Your task to perform on an android device: Open Google Chrome Image 0: 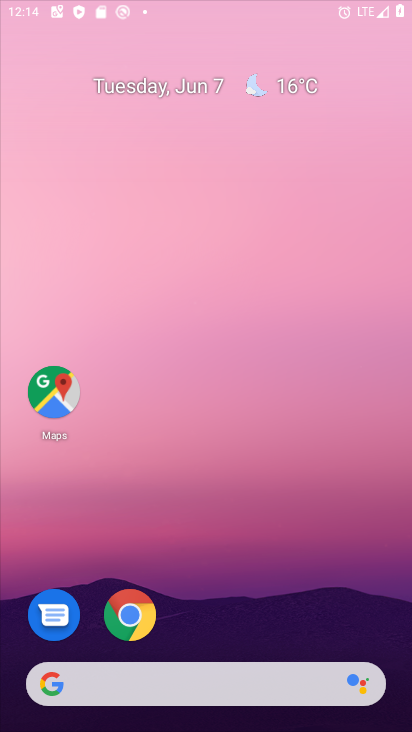
Step 0: press home button
Your task to perform on an android device: Open Google Chrome Image 1: 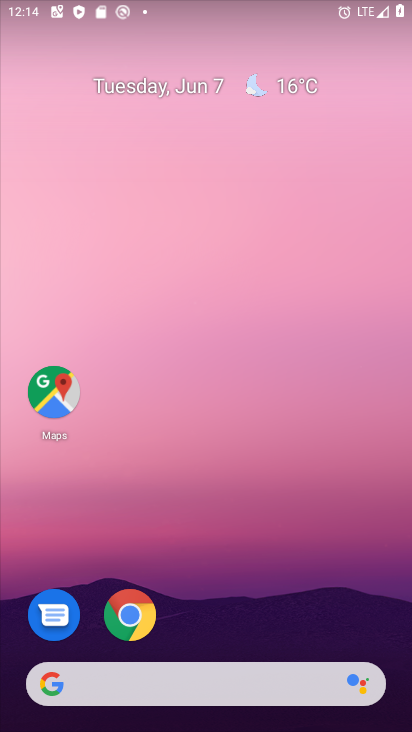
Step 1: click (126, 607)
Your task to perform on an android device: Open Google Chrome Image 2: 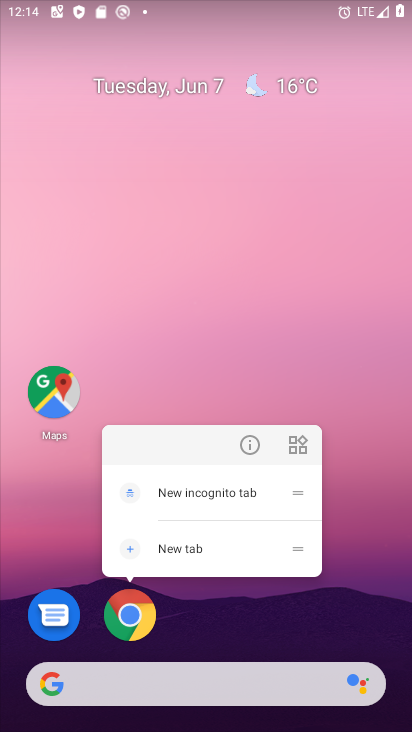
Step 2: click (126, 608)
Your task to perform on an android device: Open Google Chrome Image 3: 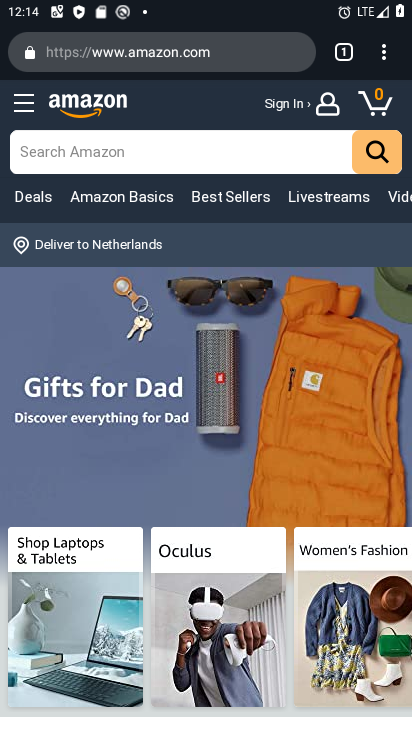
Step 3: click (342, 53)
Your task to perform on an android device: Open Google Chrome Image 4: 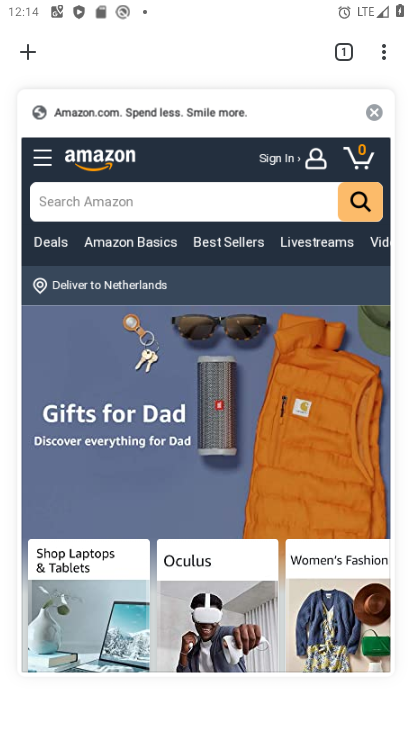
Step 4: click (373, 110)
Your task to perform on an android device: Open Google Chrome Image 5: 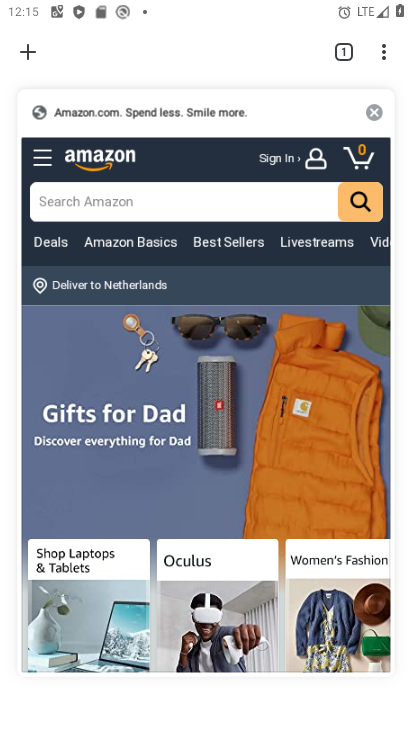
Step 5: click (375, 109)
Your task to perform on an android device: Open Google Chrome Image 6: 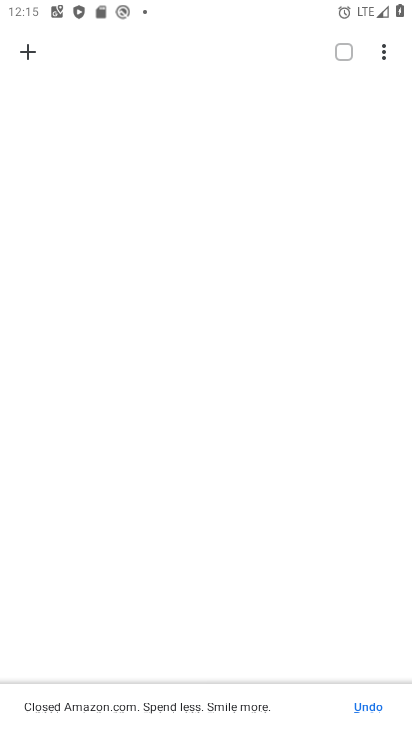
Step 6: click (29, 49)
Your task to perform on an android device: Open Google Chrome Image 7: 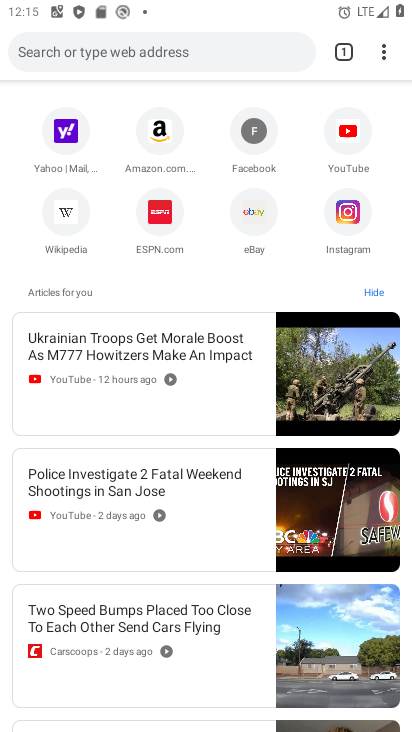
Step 7: task complete